Your task to perform on an android device: turn notification dots on Image 0: 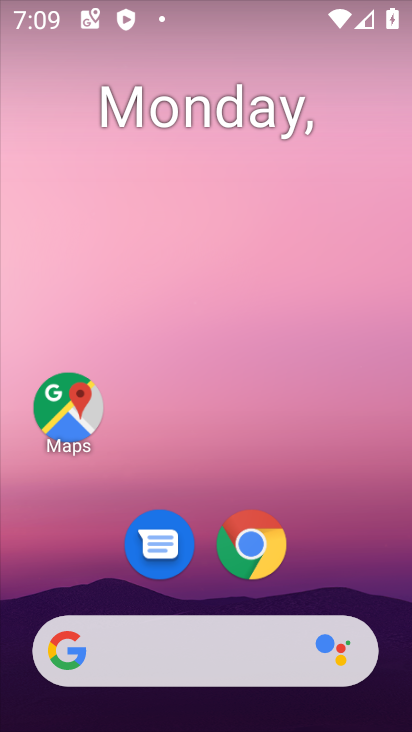
Step 0: drag from (328, 557) to (250, 35)
Your task to perform on an android device: turn notification dots on Image 1: 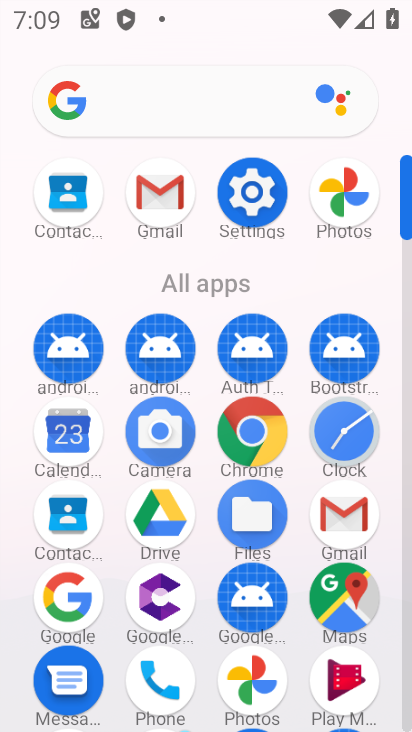
Step 1: click (244, 190)
Your task to perform on an android device: turn notification dots on Image 2: 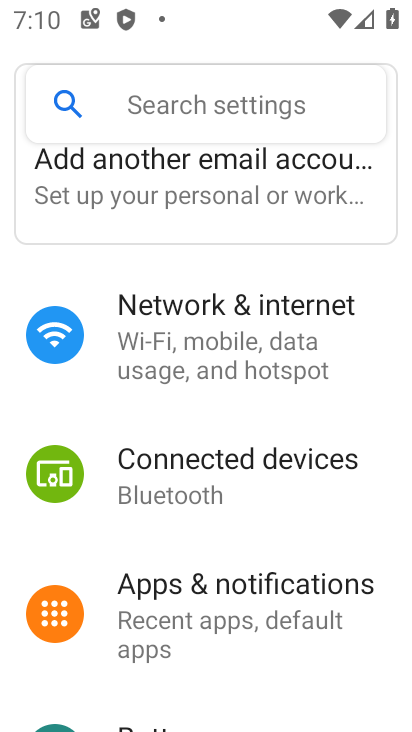
Step 2: click (213, 580)
Your task to perform on an android device: turn notification dots on Image 3: 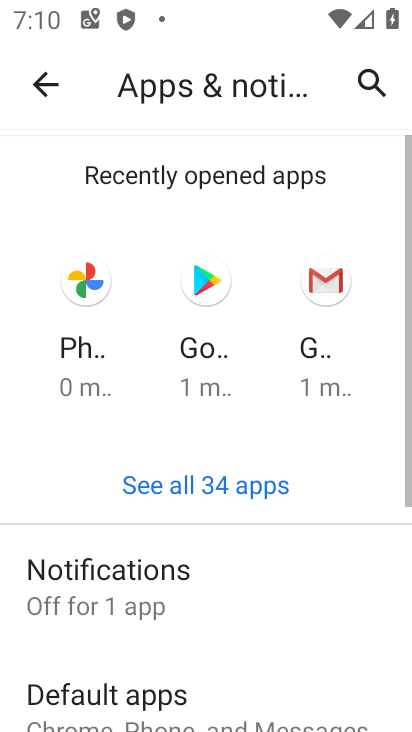
Step 3: drag from (254, 565) to (212, 260)
Your task to perform on an android device: turn notification dots on Image 4: 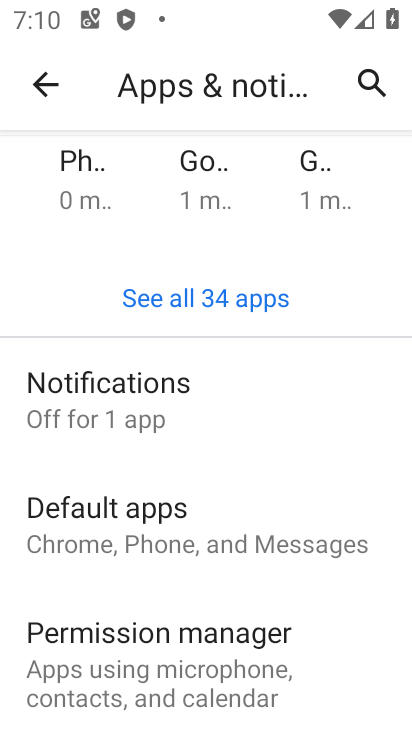
Step 4: drag from (195, 572) to (186, 358)
Your task to perform on an android device: turn notification dots on Image 5: 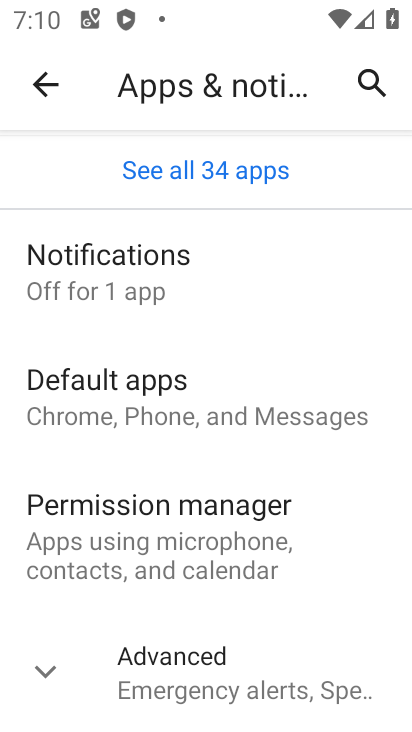
Step 5: click (92, 253)
Your task to perform on an android device: turn notification dots on Image 6: 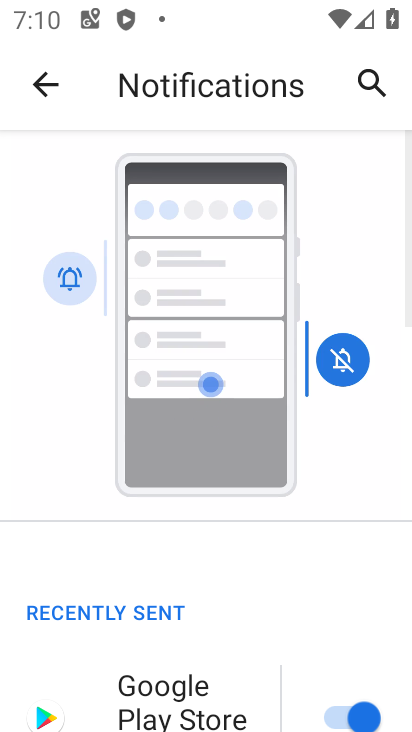
Step 6: drag from (241, 531) to (228, 247)
Your task to perform on an android device: turn notification dots on Image 7: 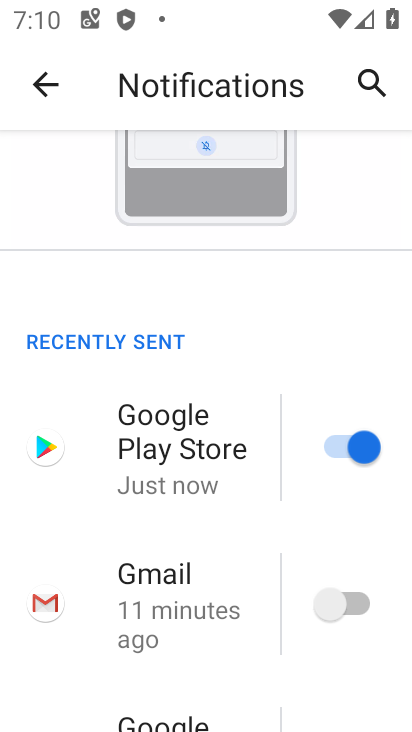
Step 7: drag from (251, 653) to (250, 268)
Your task to perform on an android device: turn notification dots on Image 8: 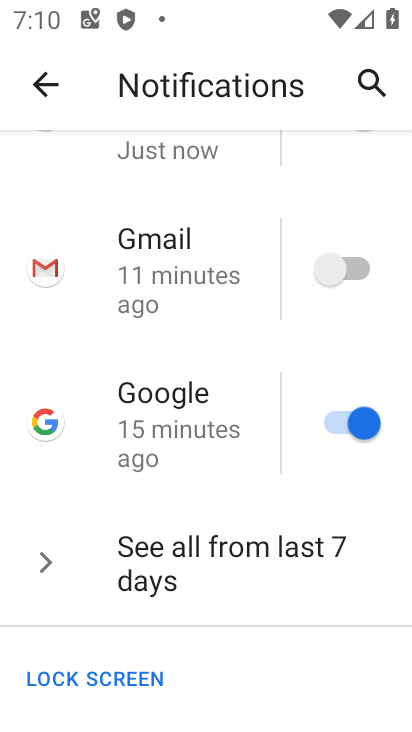
Step 8: drag from (249, 613) to (249, 303)
Your task to perform on an android device: turn notification dots on Image 9: 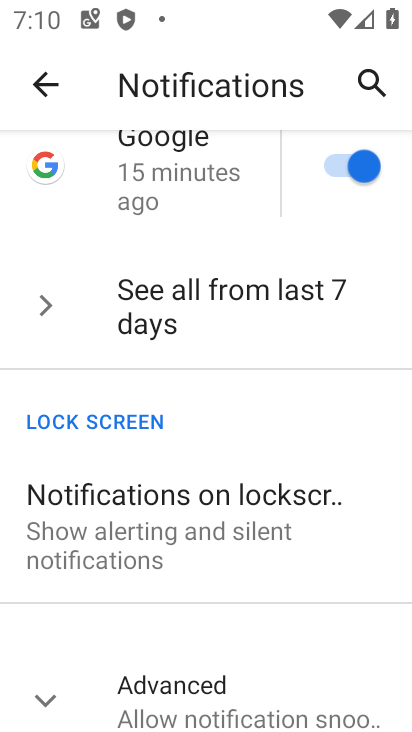
Step 9: drag from (324, 584) to (318, 199)
Your task to perform on an android device: turn notification dots on Image 10: 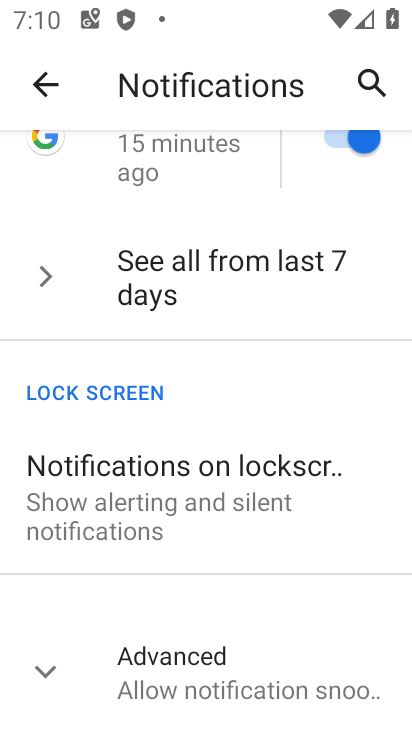
Step 10: click (52, 672)
Your task to perform on an android device: turn notification dots on Image 11: 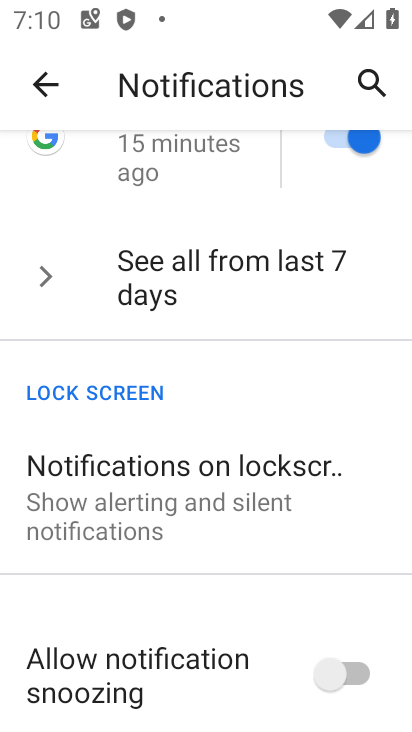
Step 11: task complete